Your task to perform on an android device: manage bookmarks in the chrome app Image 0: 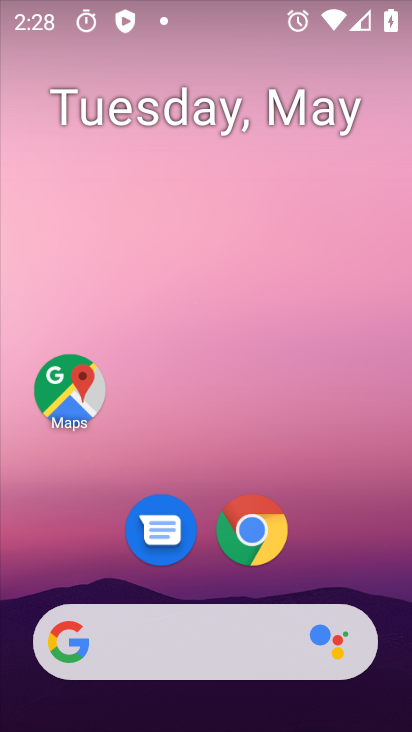
Step 0: click (262, 515)
Your task to perform on an android device: manage bookmarks in the chrome app Image 1: 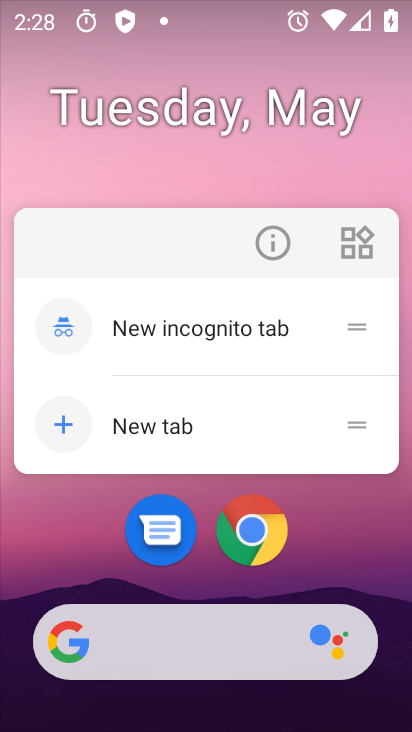
Step 1: click (262, 515)
Your task to perform on an android device: manage bookmarks in the chrome app Image 2: 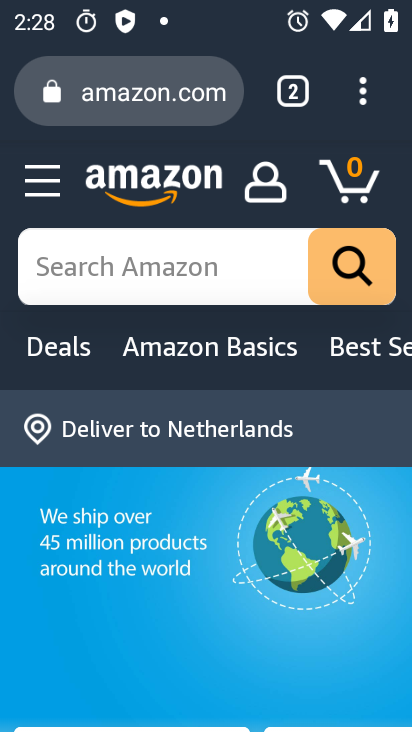
Step 2: click (358, 98)
Your task to perform on an android device: manage bookmarks in the chrome app Image 3: 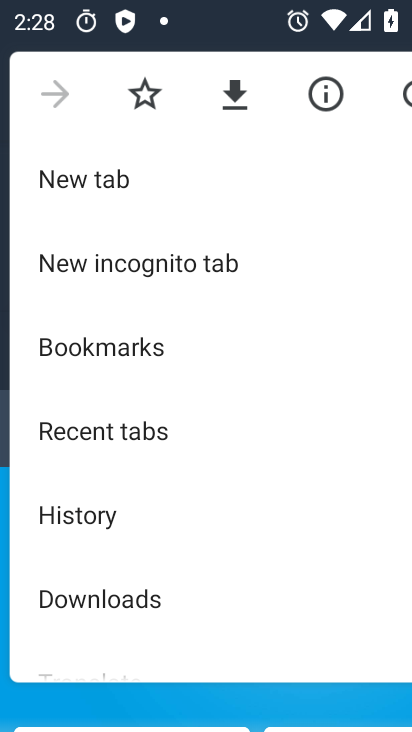
Step 3: drag from (188, 553) to (170, 154)
Your task to perform on an android device: manage bookmarks in the chrome app Image 4: 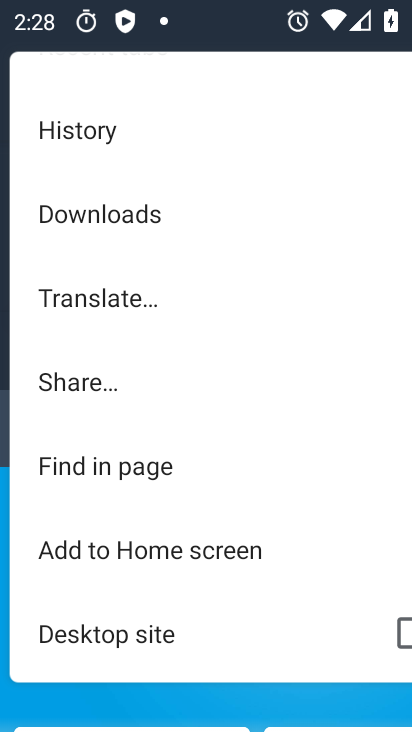
Step 4: drag from (137, 650) to (110, 182)
Your task to perform on an android device: manage bookmarks in the chrome app Image 5: 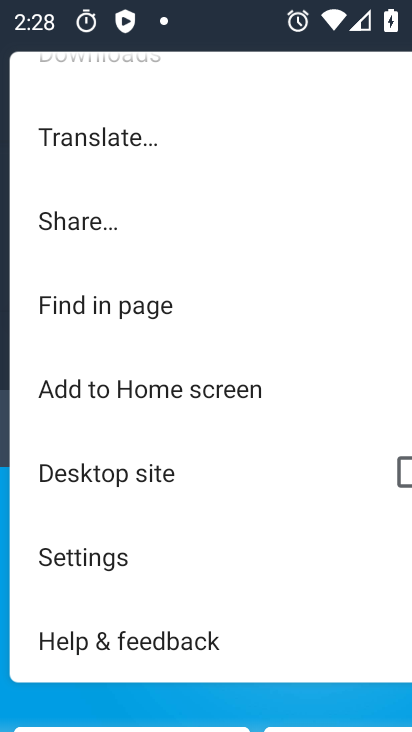
Step 5: click (104, 535)
Your task to perform on an android device: manage bookmarks in the chrome app Image 6: 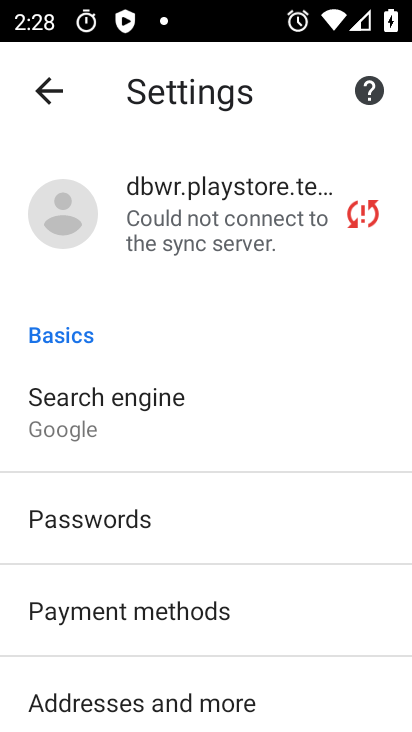
Step 6: click (37, 84)
Your task to perform on an android device: manage bookmarks in the chrome app Image 7: 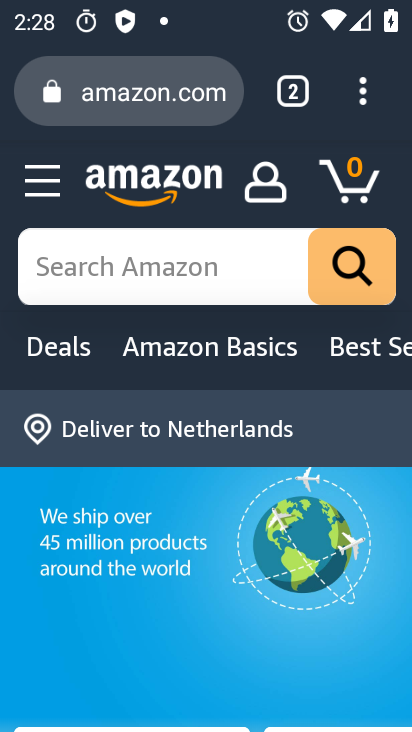
Step 7: click (379, 91)
Your task to perform on an android device: manage bookmarks in the chrome app Image 8: 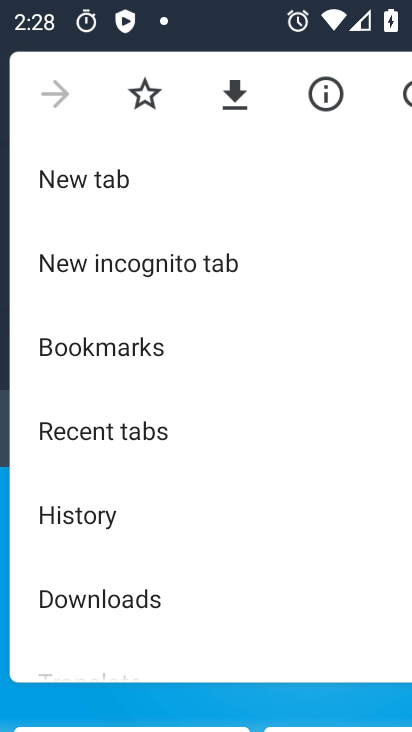
Step 8: click (119, 334)
Your task to perform on an android device: manage bookmarks in the chrome app Image 9: 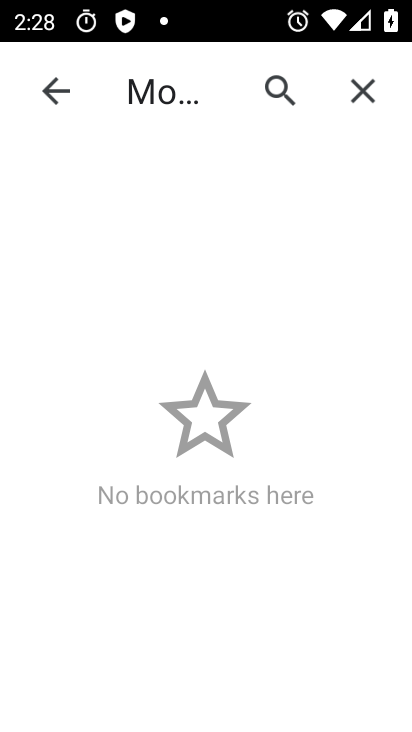
Step 9: task complete